Your task to perform on an android device: Search for Italian restaurants on Maps Image 0: 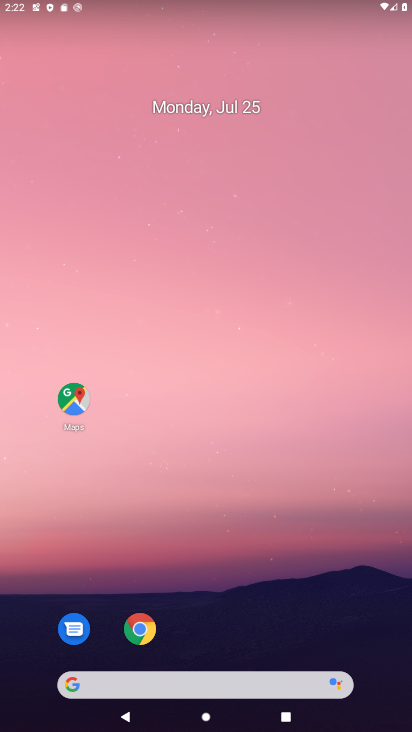
Step 0: click (71, 386)
Your task to perform on an android device: Search for Italian restaurants on Maps Image 1: 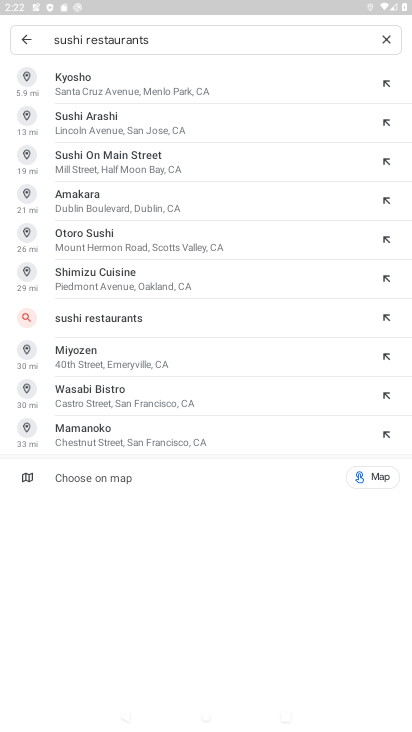
Step 1: click (29, 41)
Your task to perform on an android device: Search for Italian restaurants on Maps Image 2: 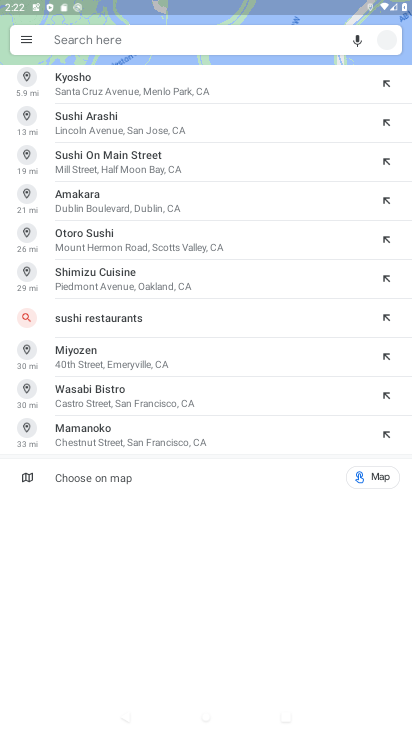
Step 2: click (105, 40)
Your task to perform on an android device: Search for Italian restaurants on Maps Image 3: 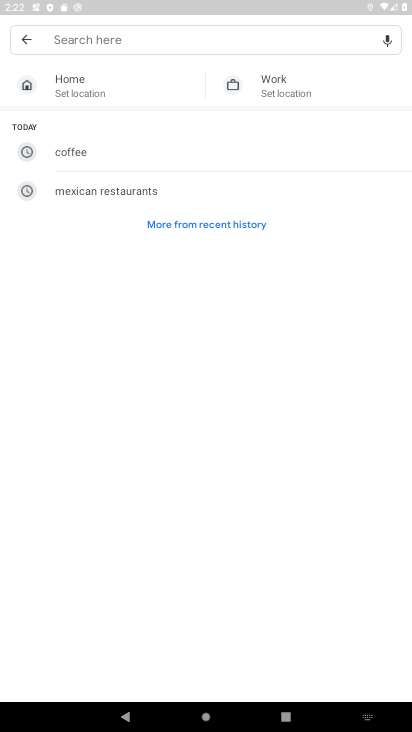
Step 3: type " Italian restaurants "
Your task to perform on an android device: Search for Italian restaurants on Maps Image 4: 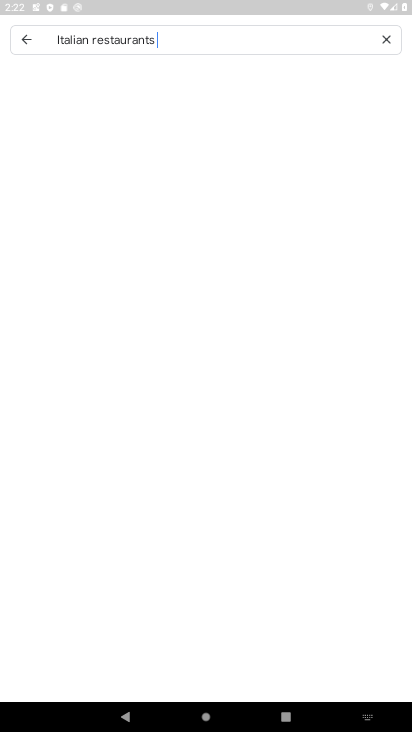
Step 4: type ""
Your task to perform on an android device: Search for Italian restaurants on Maps Image 5: 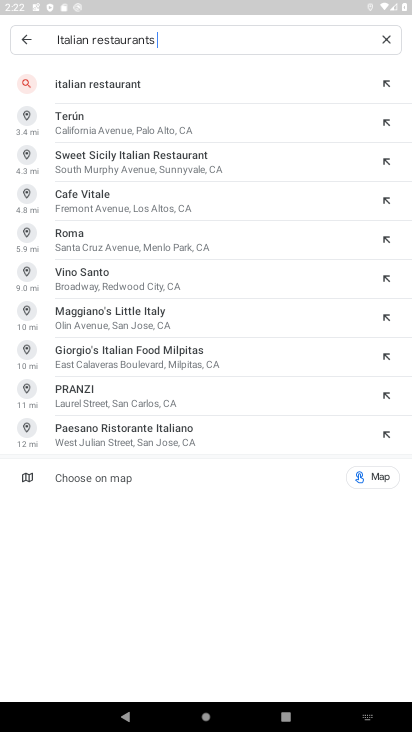
Step 5: click (95, 86)
Your task to perform on an android device: Search for Italian restaurants on Maps Image 6: 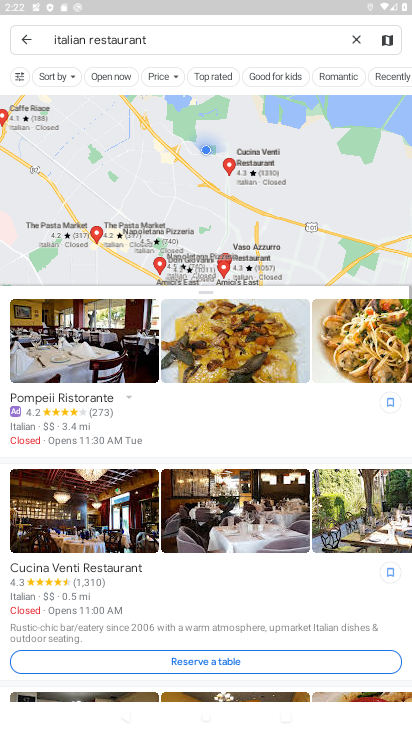
Step 6: task complete